Your task to perform on an android device: turn pop-ups off in chrome Image 0: 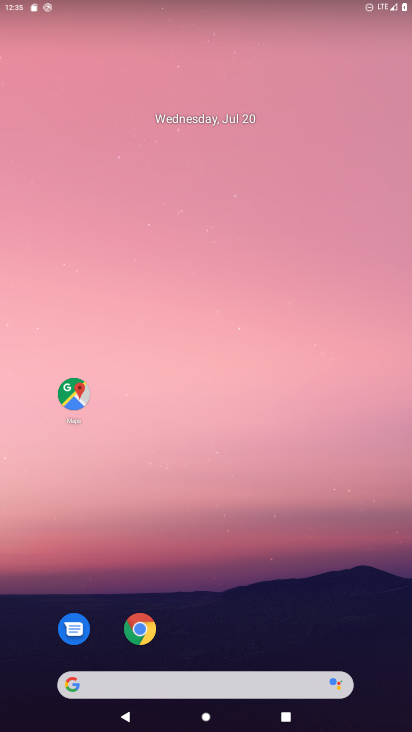
Step 0: click (139, 640)
Your task to perform on an android device: turn pop-ups off in chrome Image 1: 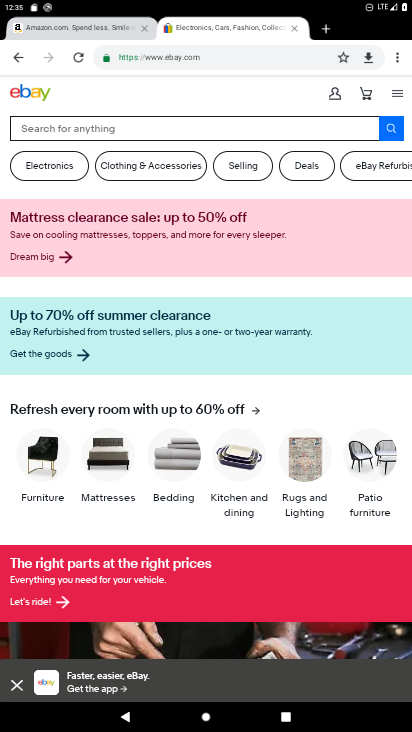
Step 1: click (395, 59)
Your task to perform on an android device: turn pop-ups off in chrome Image 2: 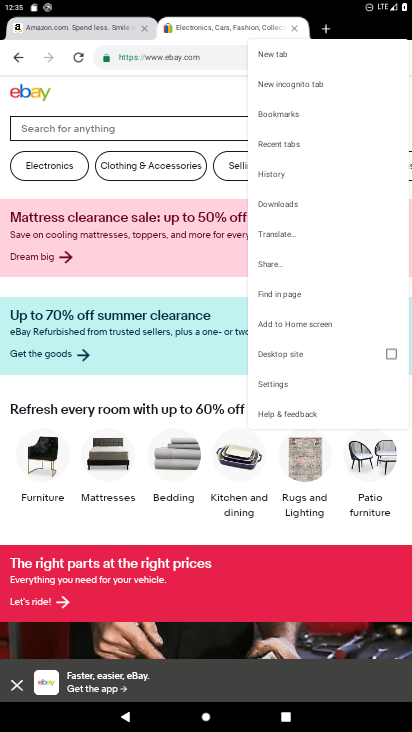
Step 2: click (273, 382)
Your task to perform on an android device: turn pop-ups off in chrome Image 3: 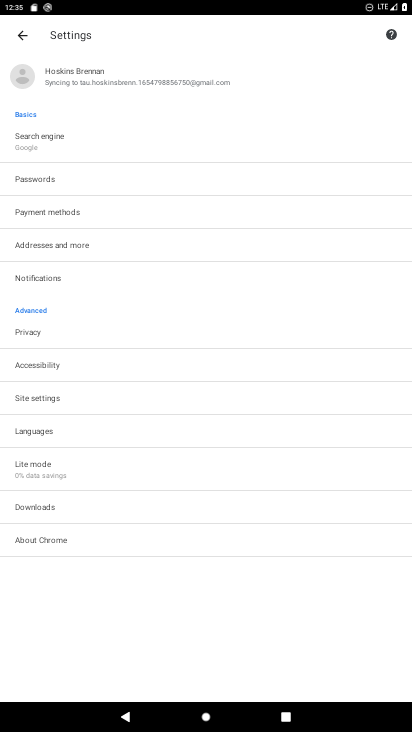
Step 3: click (38, 395)
Your task to perform on an android device: turn pop-ups off in chrome Image 4: 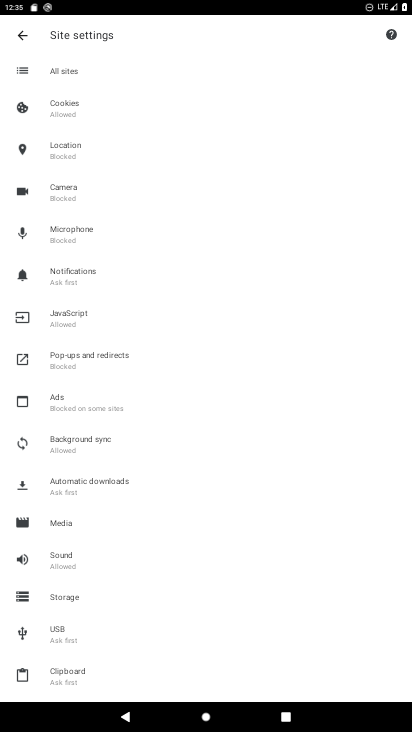
Step 4: click (91, 365)
Your task to perform on an android device: turn pop-ups off in chrome Image 5: 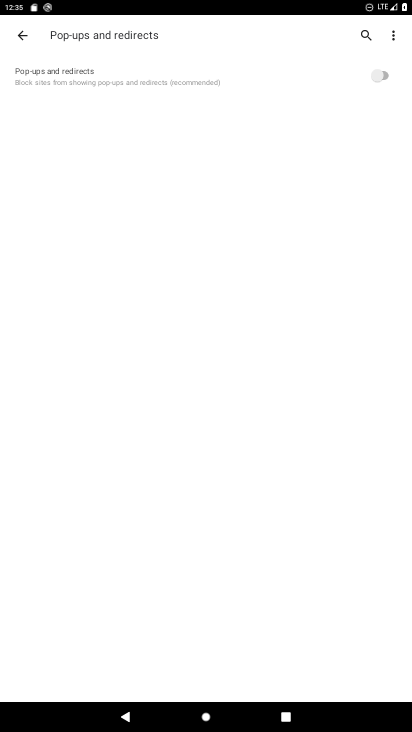
Step 5: task complete